Your task to perform on an android device: find photos in the google photos app Image 0: 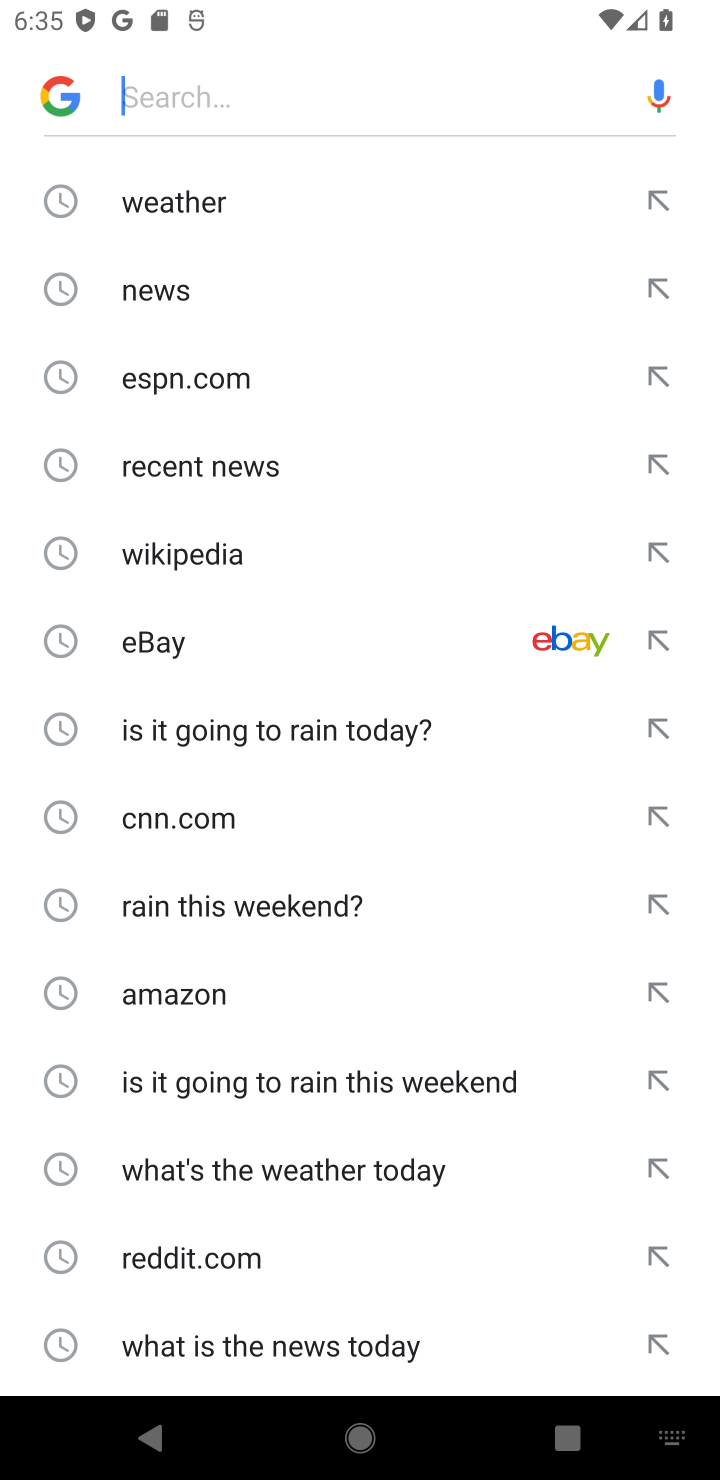
Step 0: press home button
Your task to perform on an android device: find photos in the google photos app Image 1: 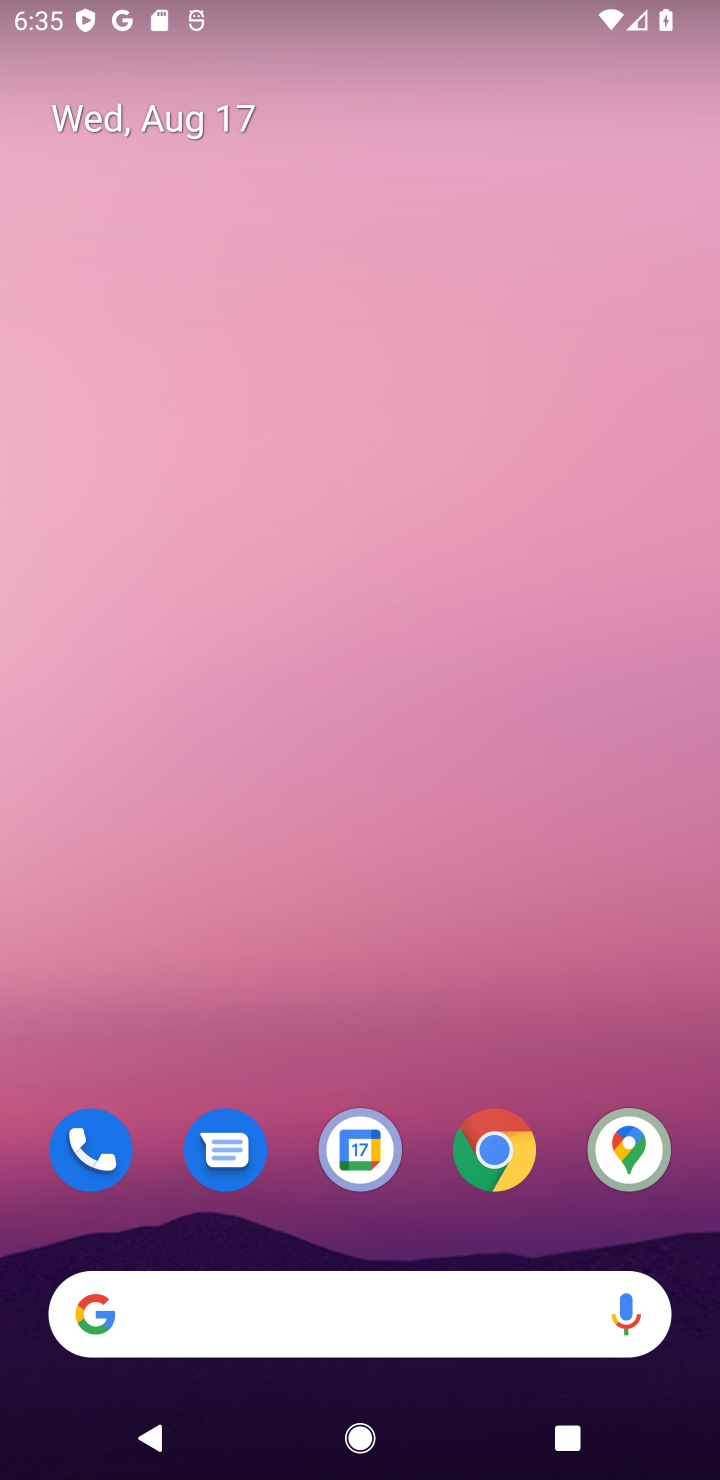
Step 1: drag from (315, 799) to (315, 426)
Your task to perform on an android device: find photos in the google photos app Image 2: 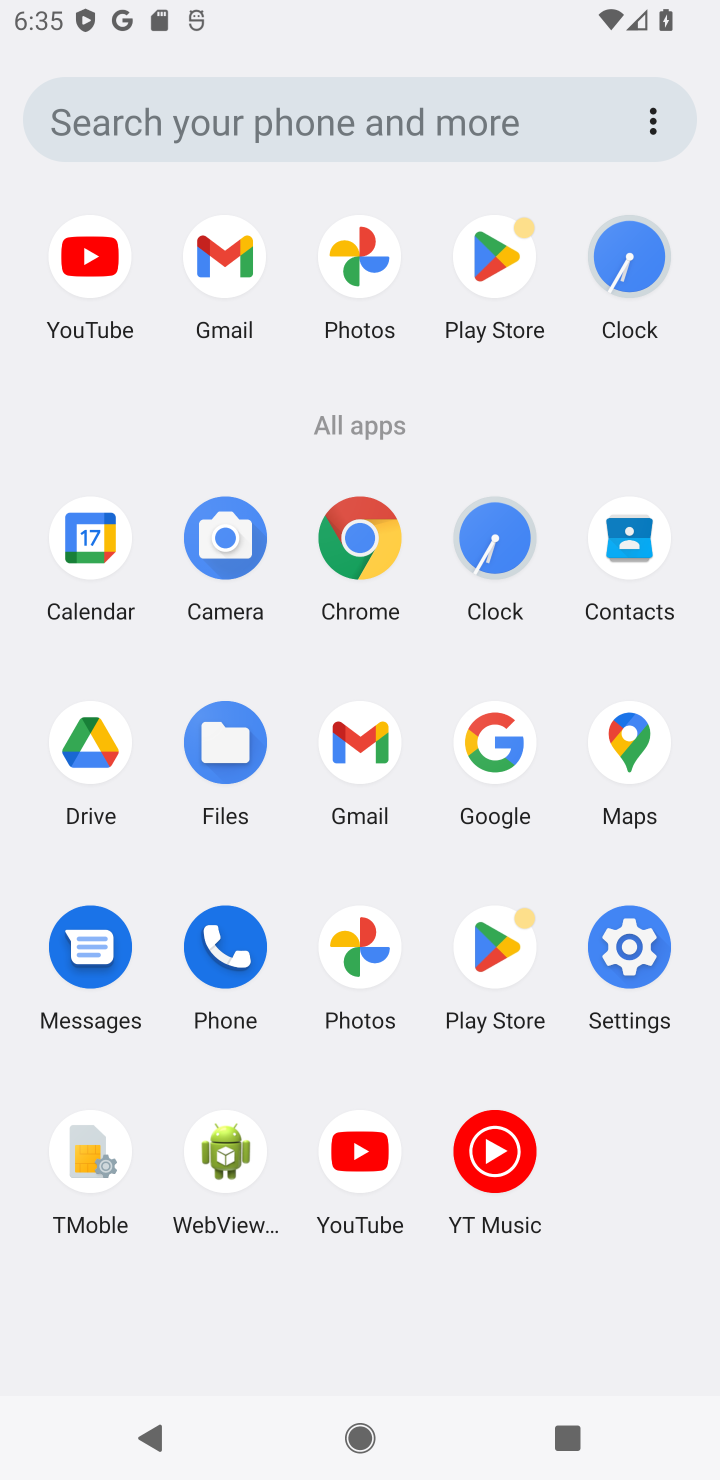
Step 2: click (350, 918)
Your task to perform on an android device: find photos in the google photos app Image 3: 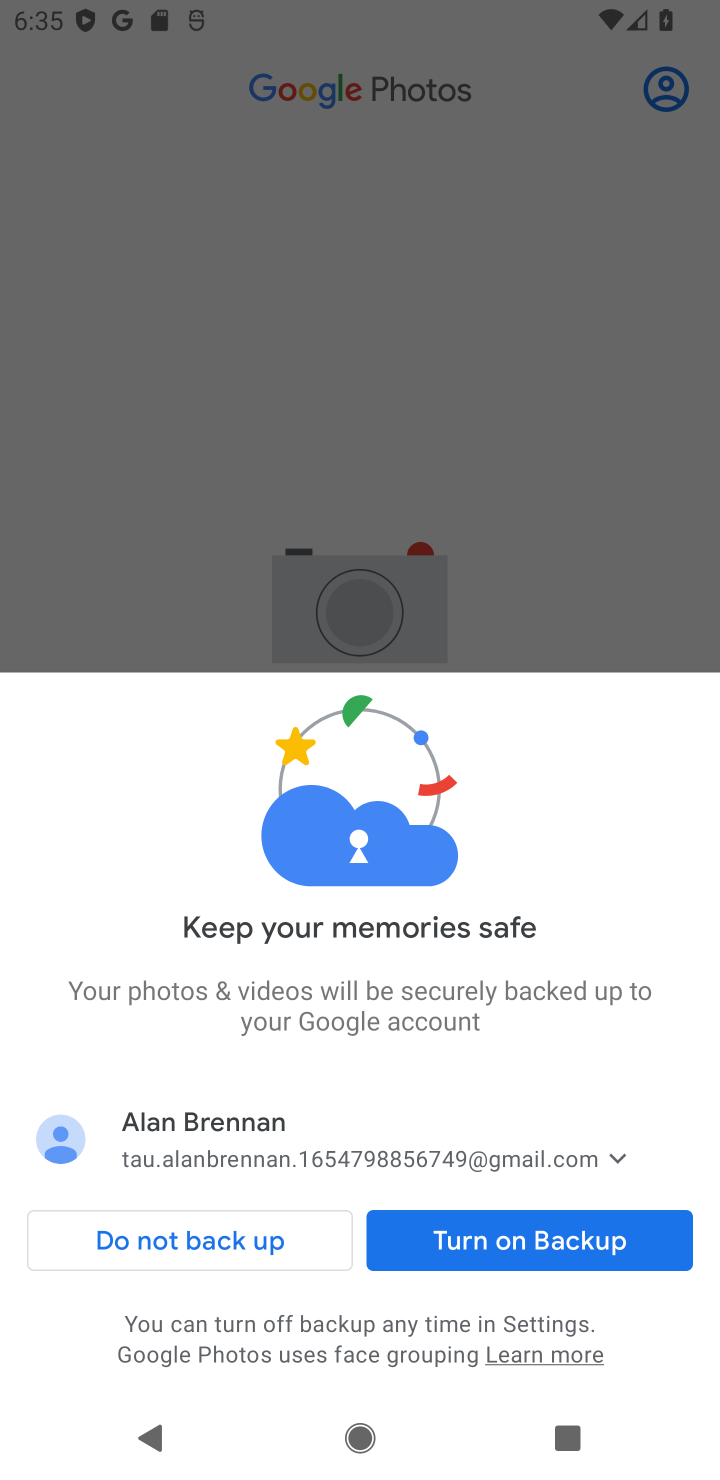
Step 3: click (517, 1240)
Your task to perform on an android device: find photos in the google photos app Image 4: 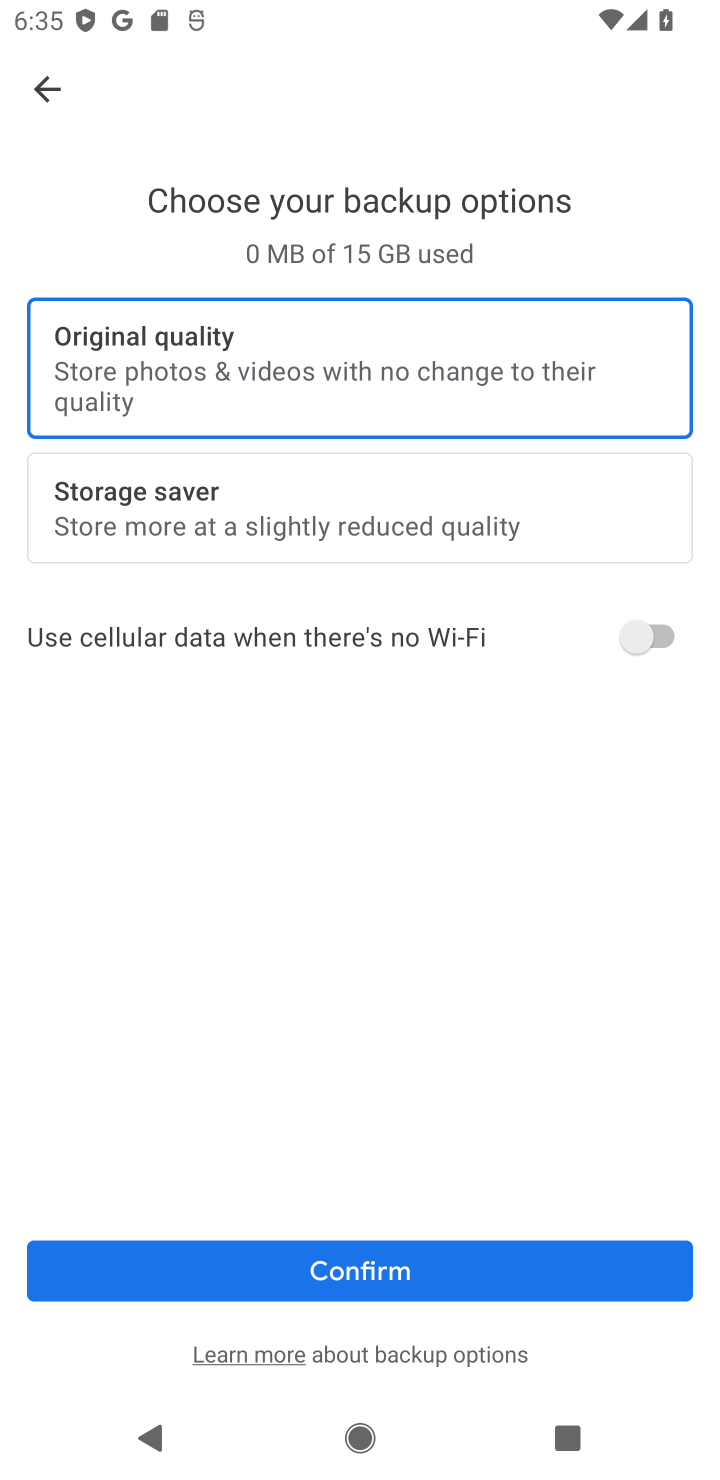
Step 4: click (259, 1284)
Your task to perform on an android device: find photos in the google photos app Image 5: 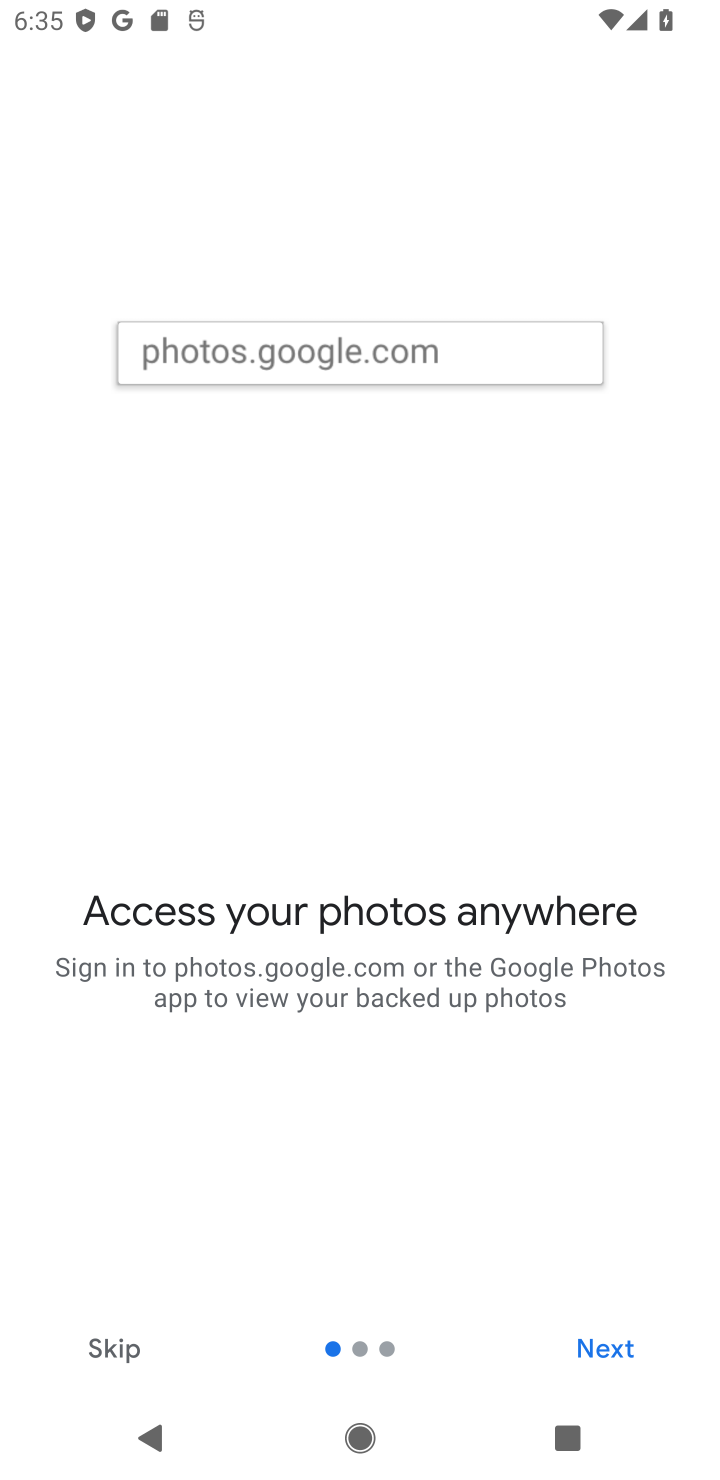
Step 5: click (607, 1340)
Your task to perform on an android device: find photos in the google photos app Image 6: 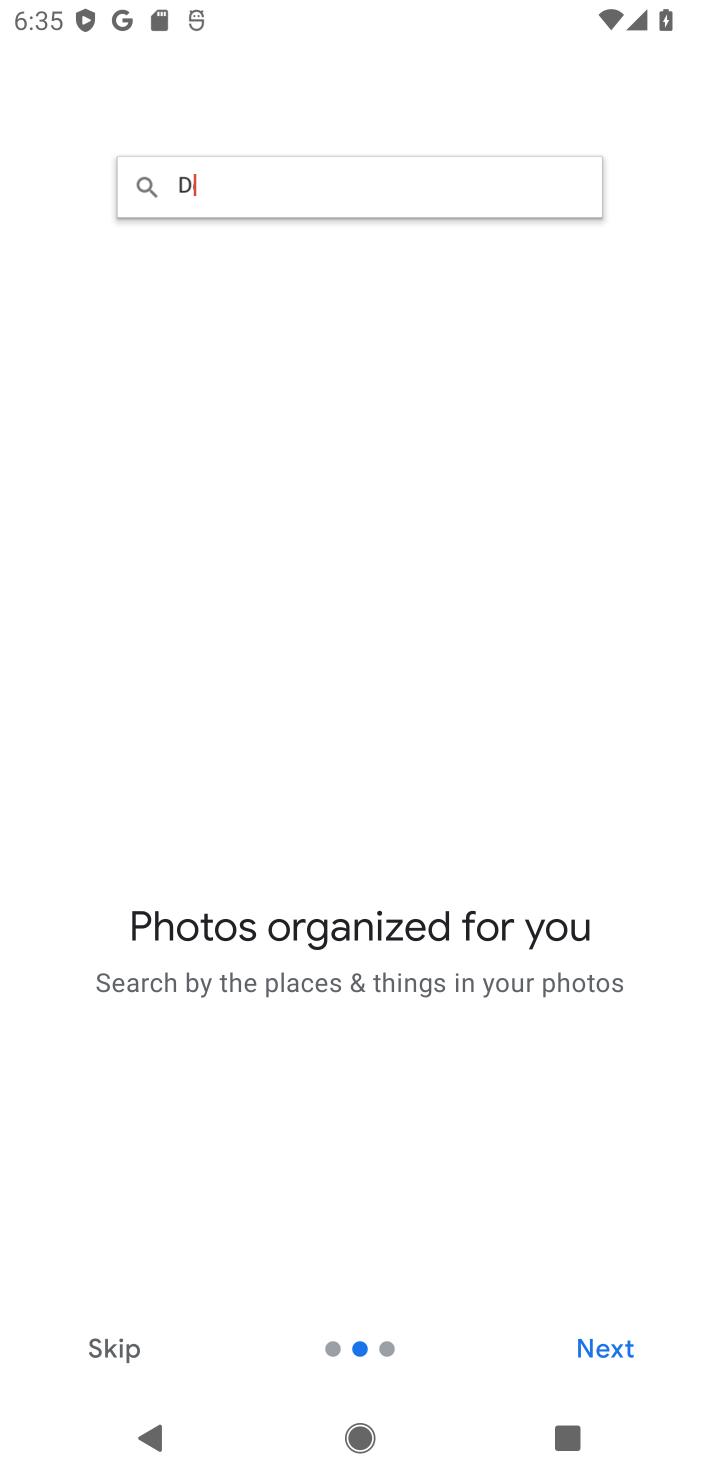
Step 6: click (607, 1340)
Your task to perform on an android device: find photos in the google photos app Image 7: 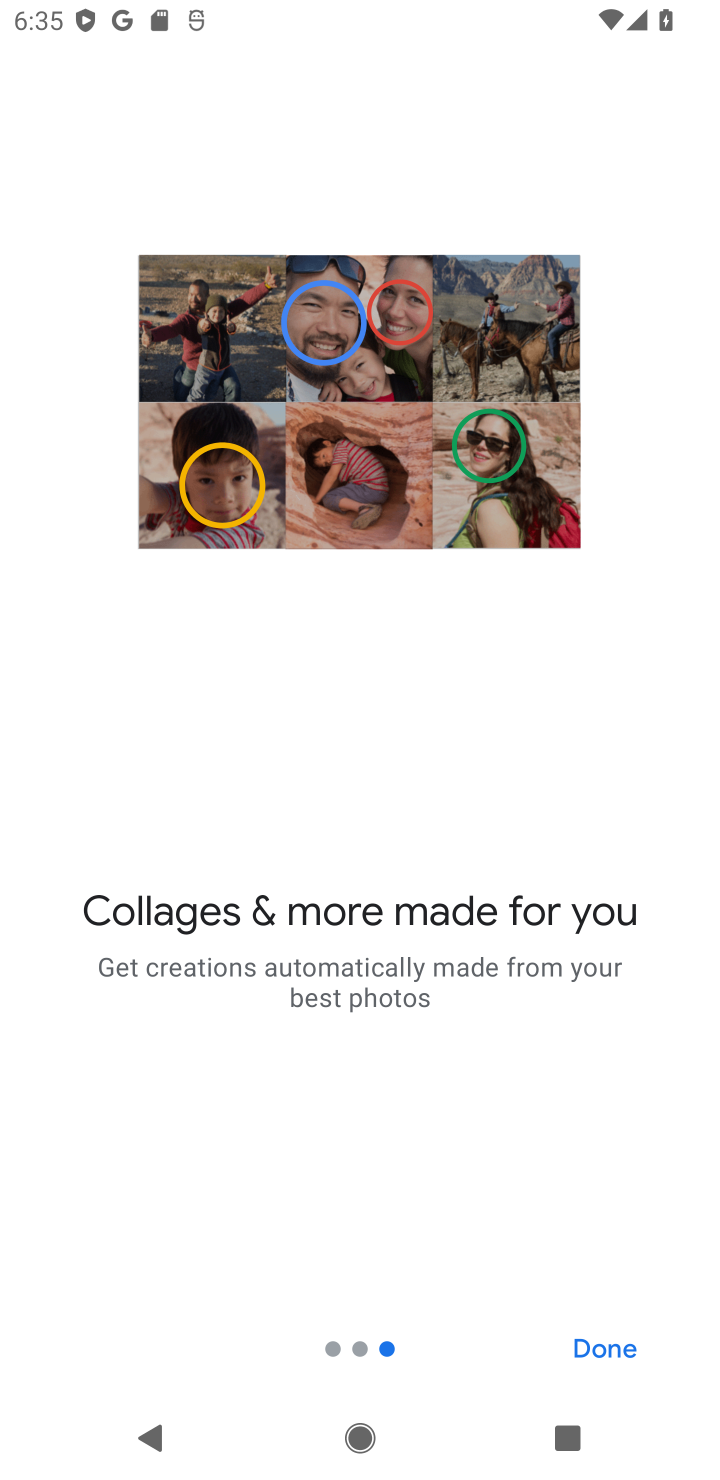
Step 7: click (607, 1340)
Your task to perform on an android device: find photos in the google photos app Image 8: 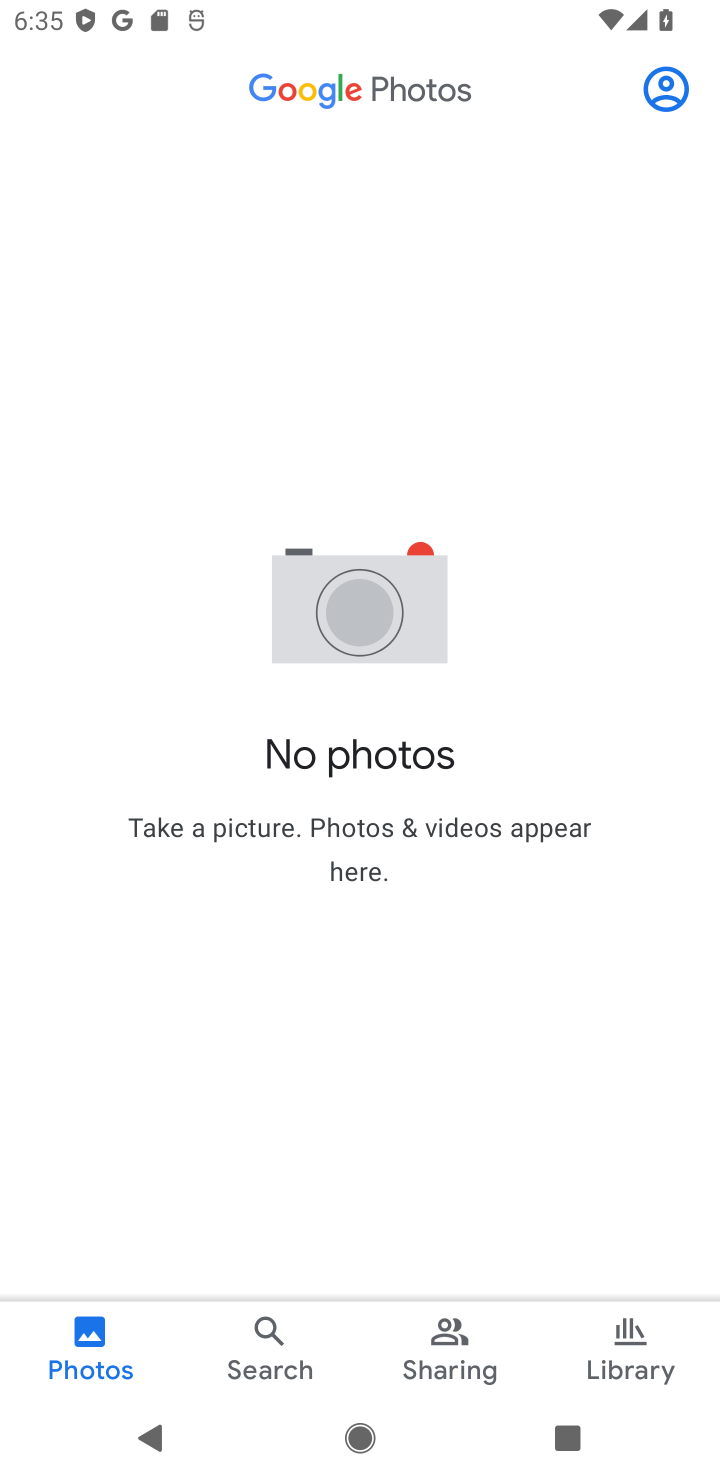
Step 8: click (607, 1340)
Your task to perform on an android device: find photos in the google photos app Image 9: 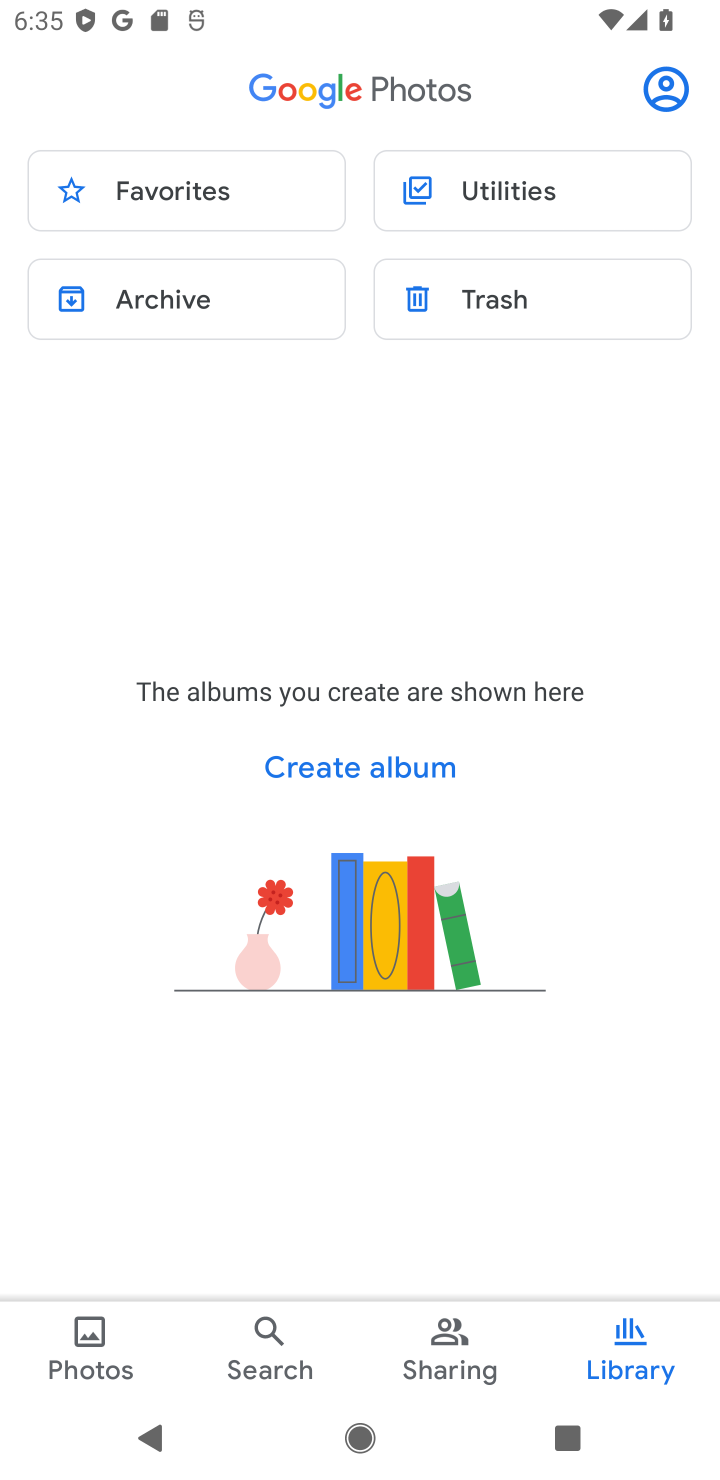
Step 9: task complete